Your task to perform on an android device: Open Youtube and go to "Your channel" Image 0: 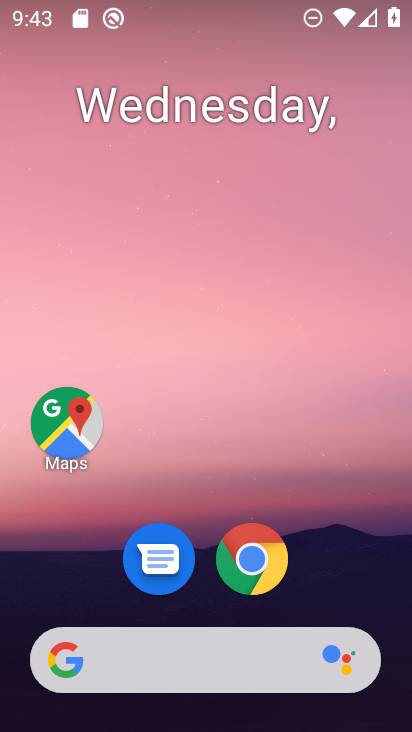
Step 0: drag from (364, 604) to (350, 290)
Your task to perform on an android device: Open Youtube and go to "Your channel" Image 1: 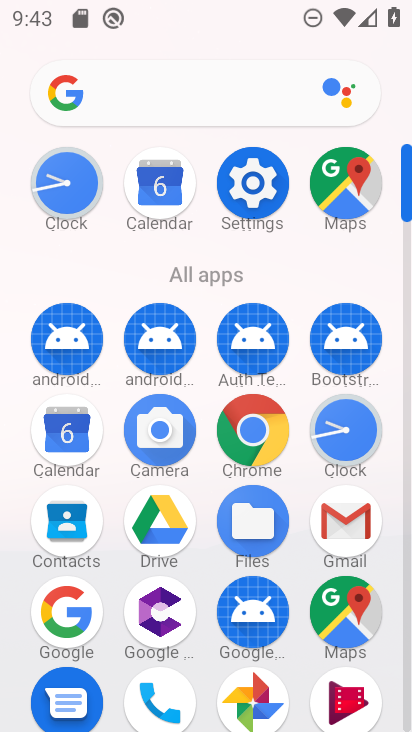
Step 1: drag from (393, 534) to (407, 201)
Your task to perform on an android device: Open Youtube and go to "Your channel" Image 2: 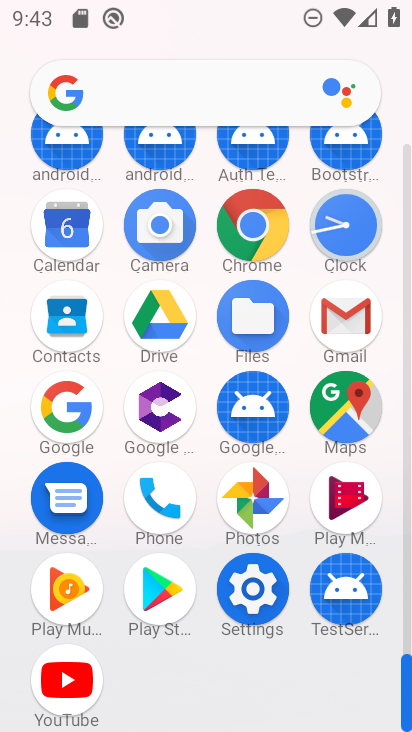
Step 2: click (81, 678)
Your task to perform on an android device: Open Youtube and go to "Your channel" Image 3: 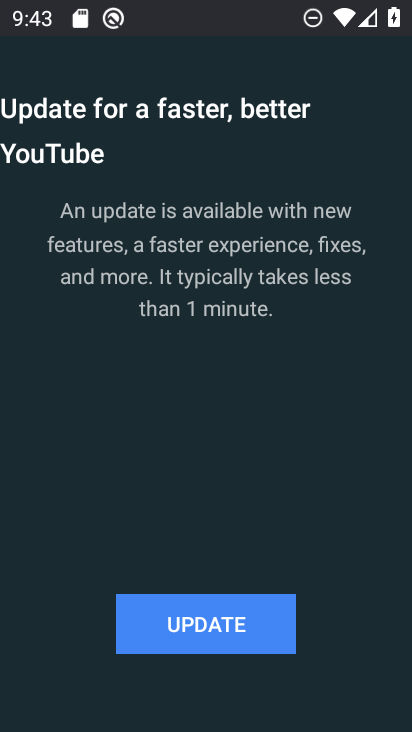
Step 3: click (186, 633)
Your task to perform on an android device: Open Youtube and go to "Your channel" Image 4: 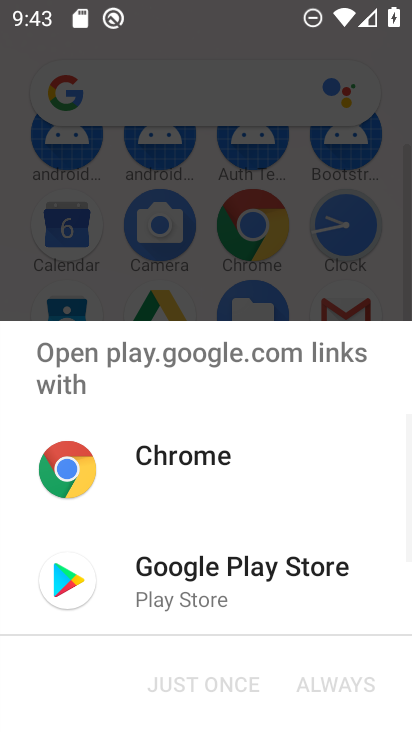
Step 4: click (188, 597)
Your task to perform on an android device: Open Youtube and go to "Your channel" Image 5: 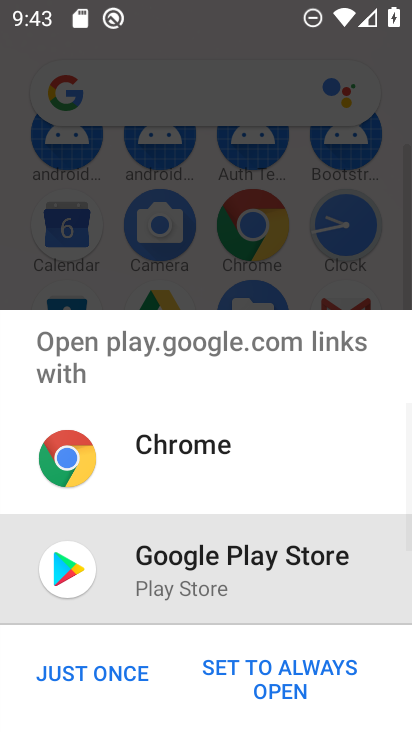
Step 5: click (127, 667)
Your task to perform on an android device: Open Youtube and go to "Your channel" Image 6: 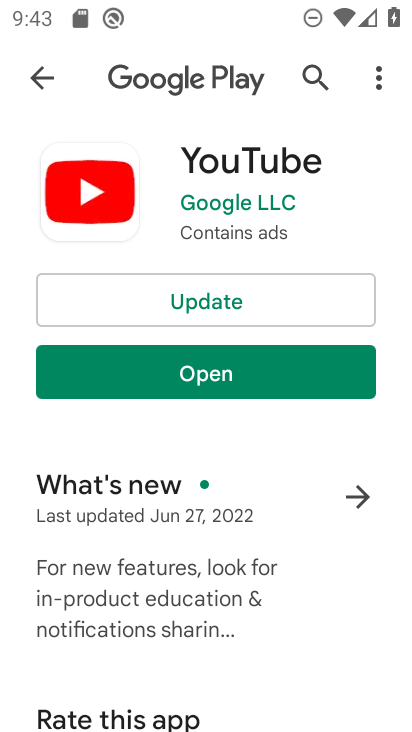
Step 6: click (239, 298)
Your task to perform on an android device: Open Youtube and go to "Your channel" Image 7: 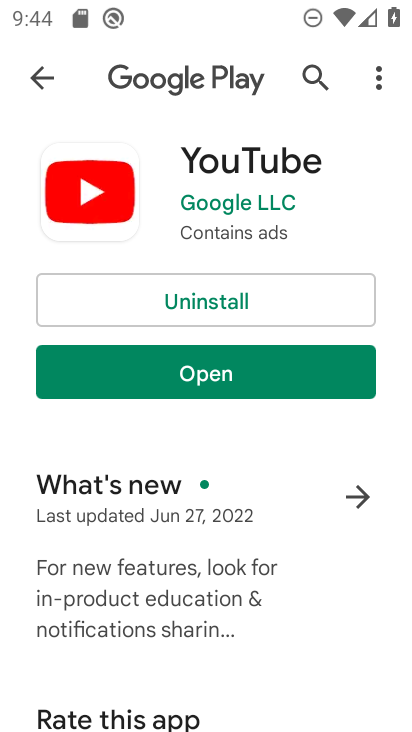
Step 7: click (277, 381)
Your task to perform on an android device: Open Youtube and go to "Your channel" Image 8: 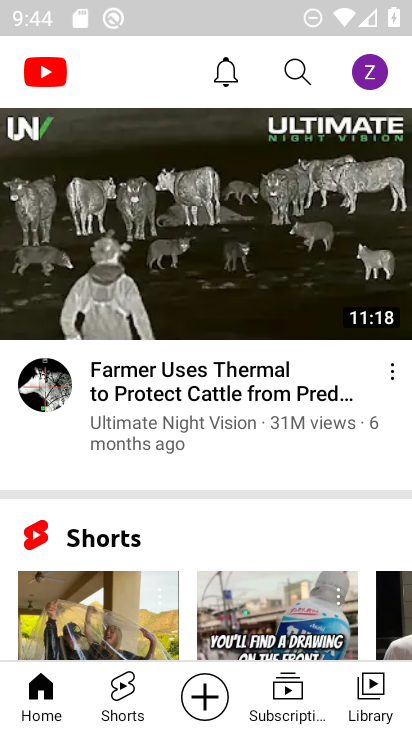
Step 8: click (372, 73)
Your task to perform on an android device: Open Youtube and go to "Your channel" Image 9: 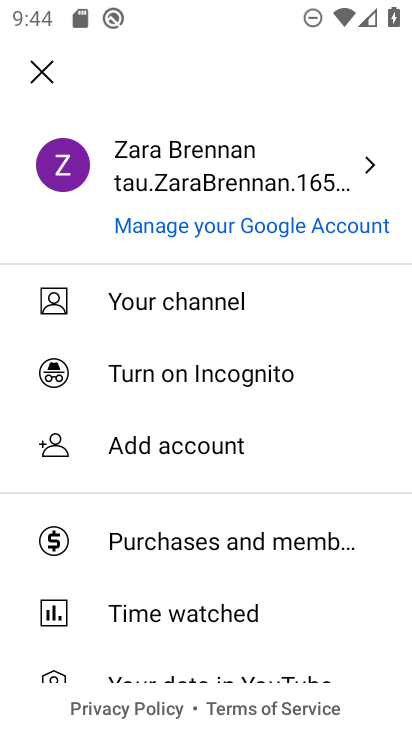
Step 9: click (217, 303)
Your task to perform on an android device: Open Youtube and go to "Your channel" Image 10: 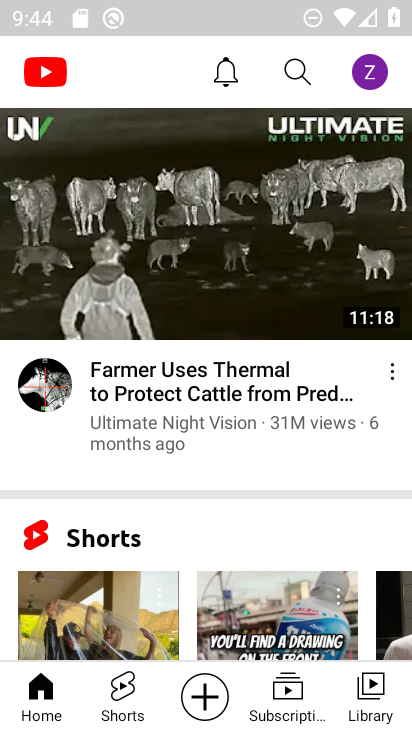
Step 10: task complete